Your task to perform on an android device: manage bookmarks in the chrome app Image 0: 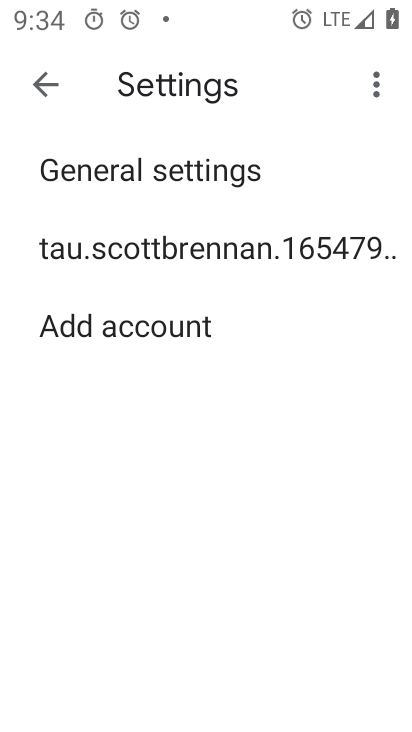
Step 0: click (44, 88)
Your task to perform on an android device: manage bookmarks in the chrome app Image 1: 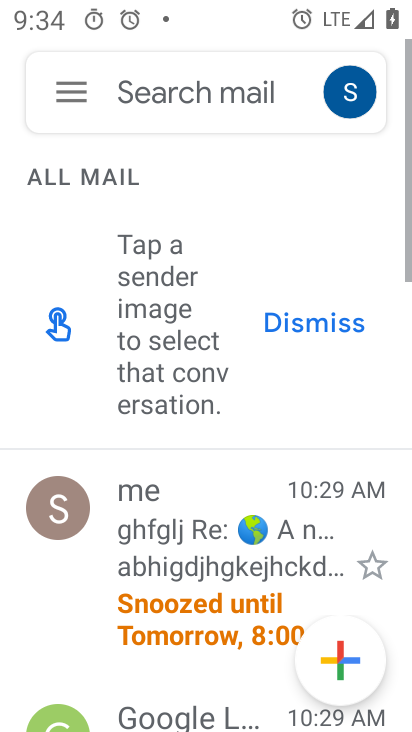
Step 1: press home button
Your task to perform on an android device: manage bookmarks in the chrome app Image 2: 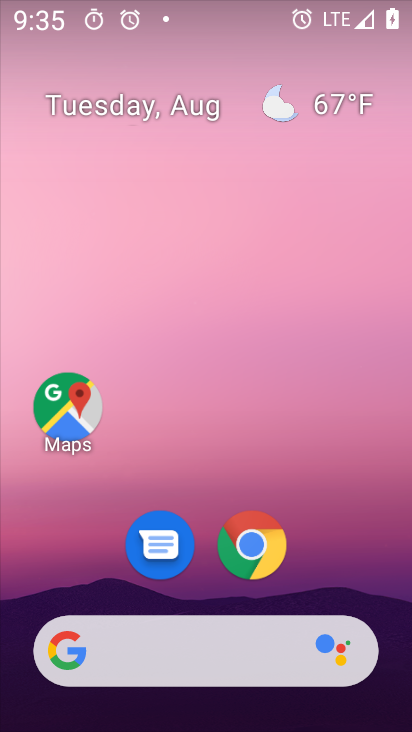
Step 2: drag from (200, 724) to (256, 266)
Your task to perform on an android device: manage bookmarks in the chrome app Image 3: 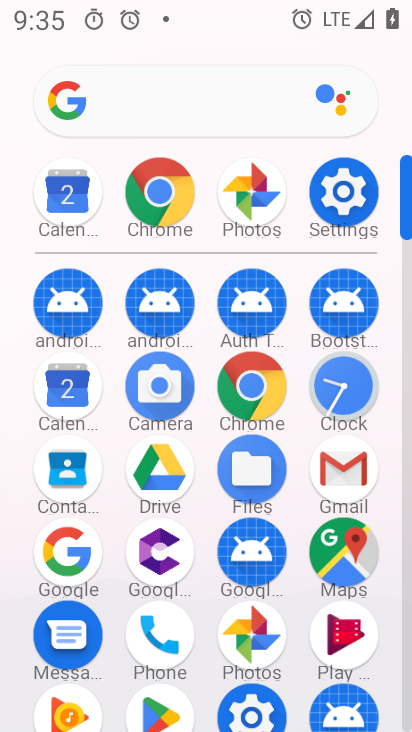
Step 3: click (165, 212)
Your task to perform on an android device: manage bookmarks in the chrome app Image 4: 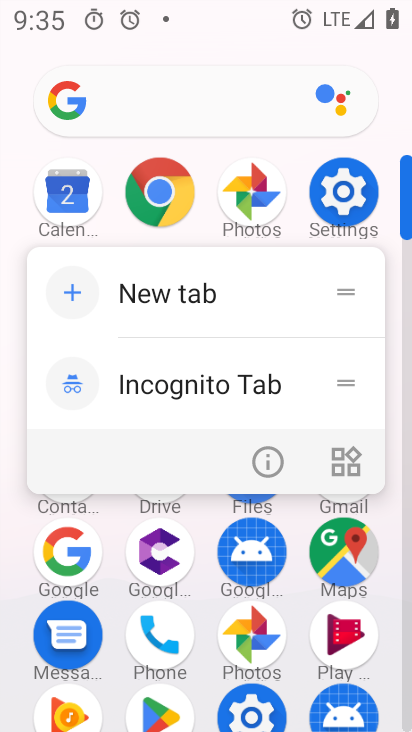
Step 4: click (172, 204)
Your task to perform on an android device: manage bookmarks in the chrome app Image 5: 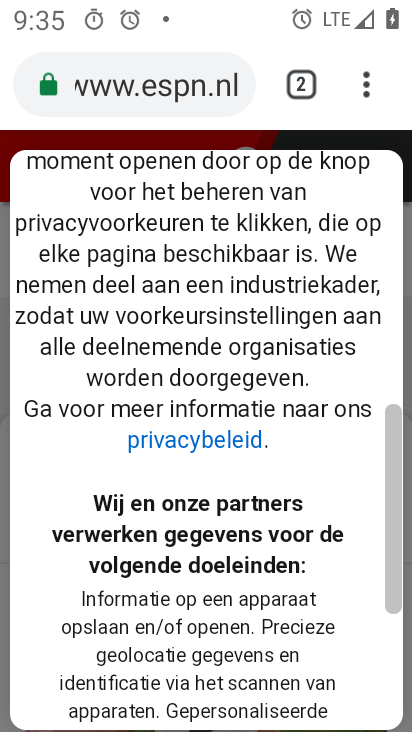
Step 5: click (365, 88)
Your task to perform on an android device: manage bookmarks in the chrome app Image 6: 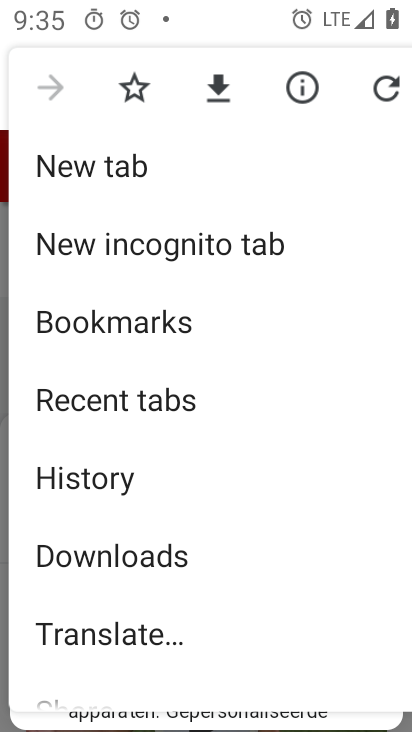
Step 6: click (119, 323)
Your task to perform on an android device: manage bookmarks in the chrome app Image 7: 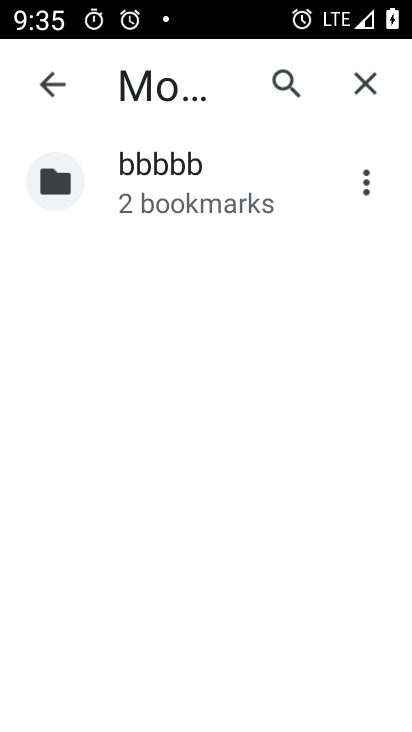
Step 7: task complete